Your task to perform on an android device: Show me the alarms in the clock app Image 0: 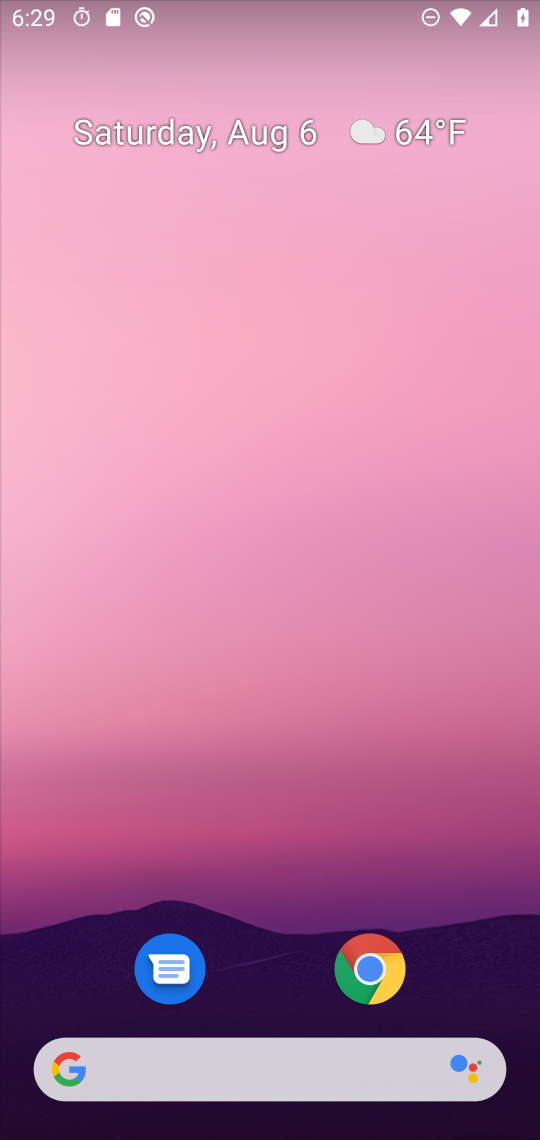
Step 0: press home button
Your task to perform on an android device: Show me the alarms in the clock app Image 1: 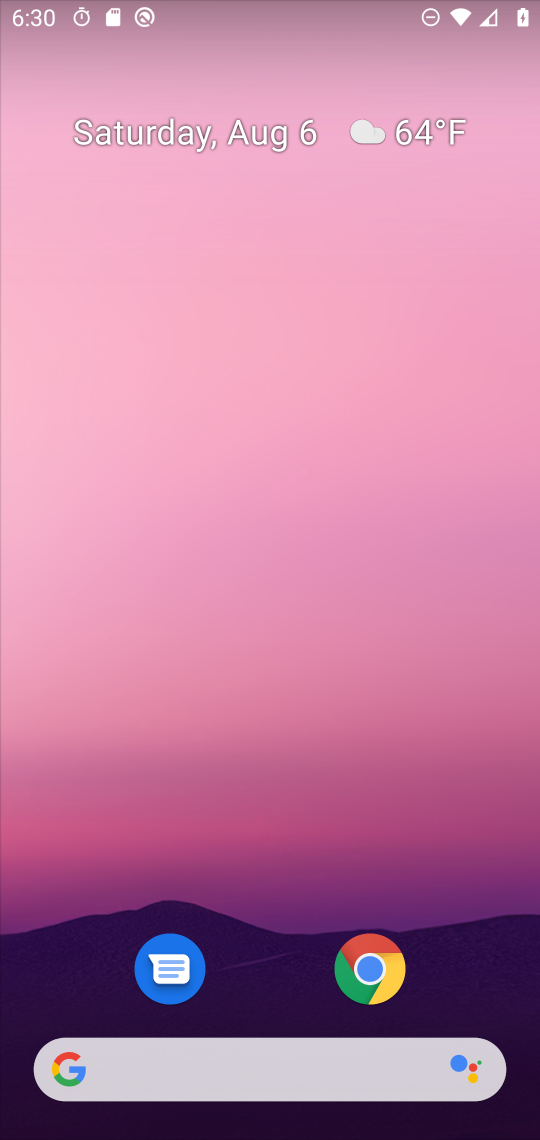
Step 1: drag from (258, 1001) to (300, 254)
Your task to perform on an android device: Show me the alarms in the clock app Image 2: 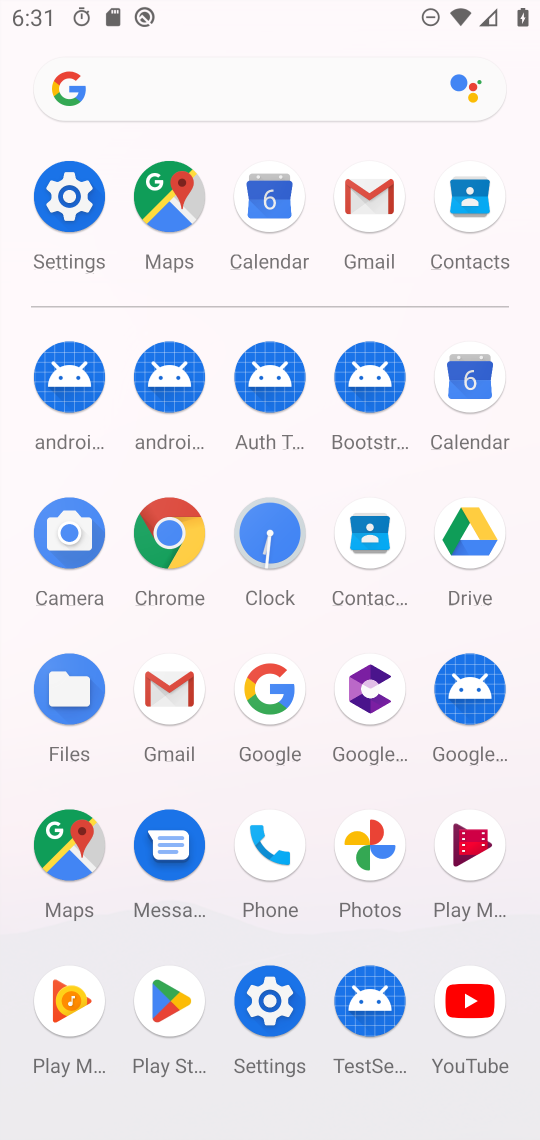
Step 2: click (285, 540)
Your task to perform on an android device: Show me the alarms in the clock app Image 3: 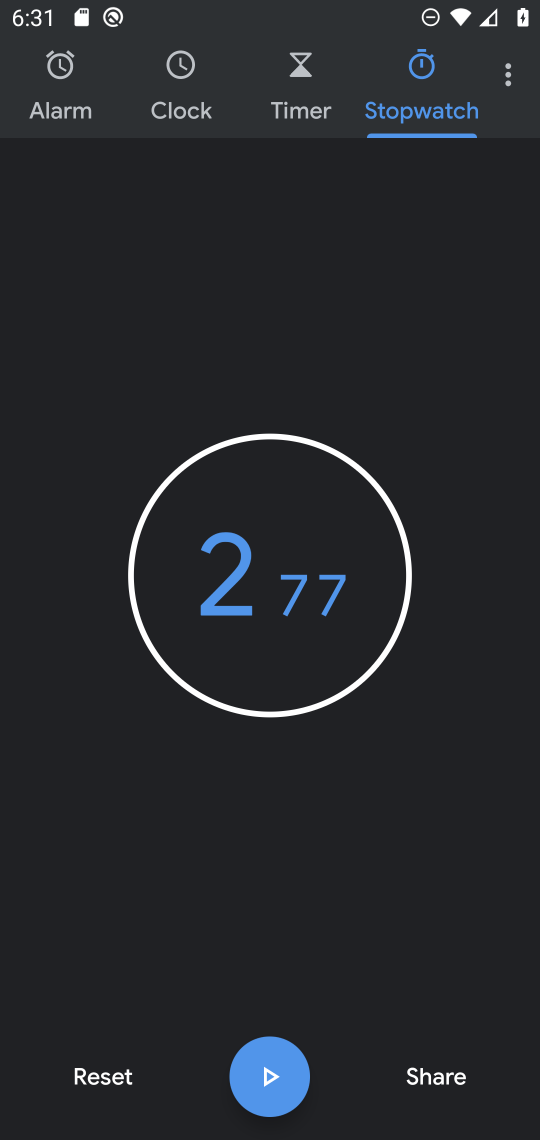
Step 3: click (68, 82)
Your task to perform on an android device: Show me the alarms in the clock app Image 4: 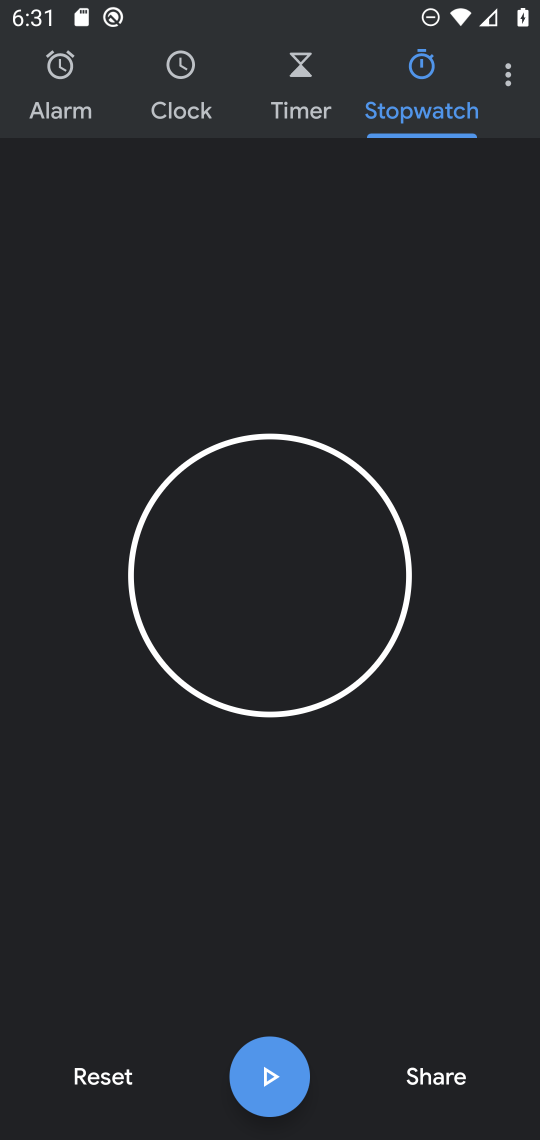
Step 4: click (57, 73)
Your task to perform on an android device: Show me the alarms in the clock app Image 5: 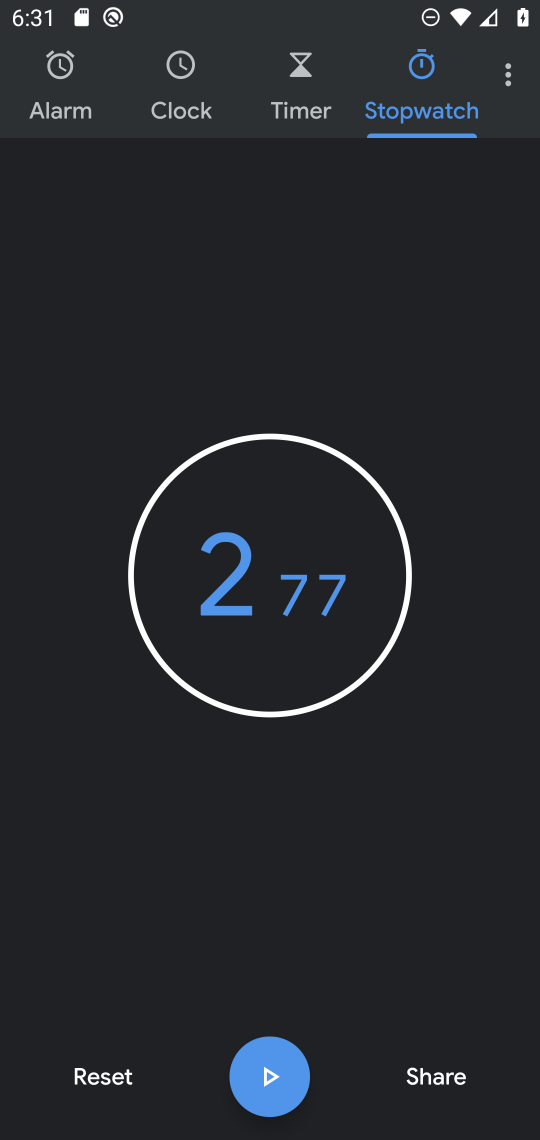
Step 5: click (62, 99)
Your task to perform on an android device: Show me the alarms in the clock app Image 6: 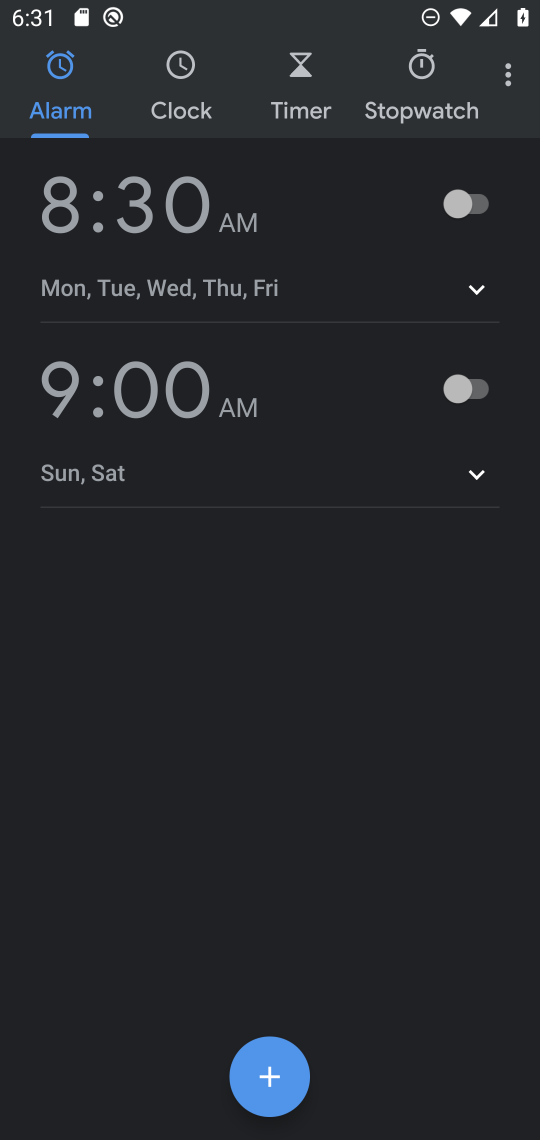
Step 6: task complete